Your task to perform on an android device: Set the phone to "Do not disturb". Image 0: 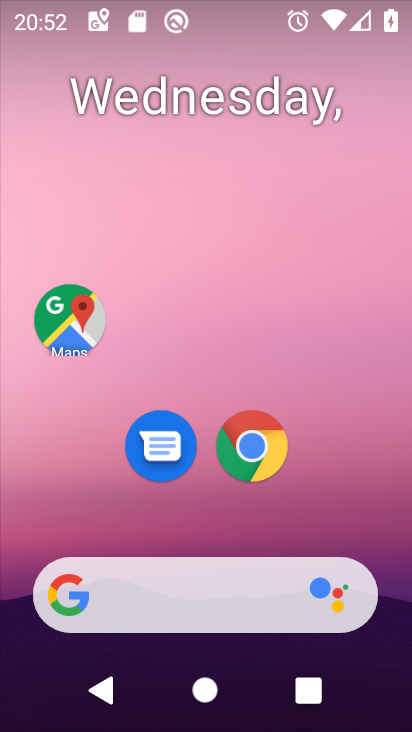
Step 0: drag from (194, 567) to (214, 184)
Your task to perform on an android device: Set the phone to "Do not disturb". Image 1: 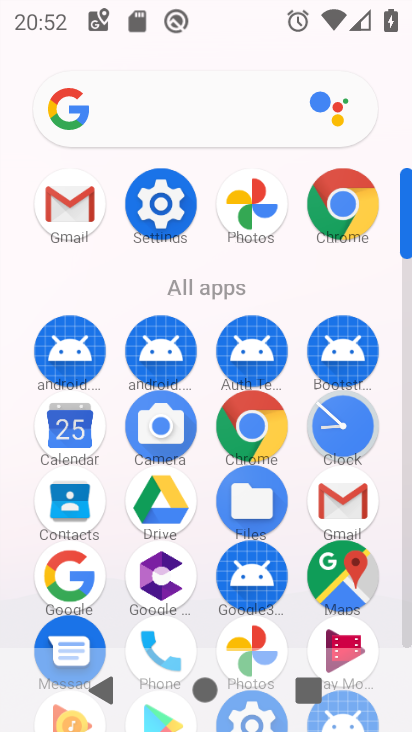
Step 1: click (147, 203)
Your task to perform on an android device: Set the phone to "Do not disturb". Image 2: 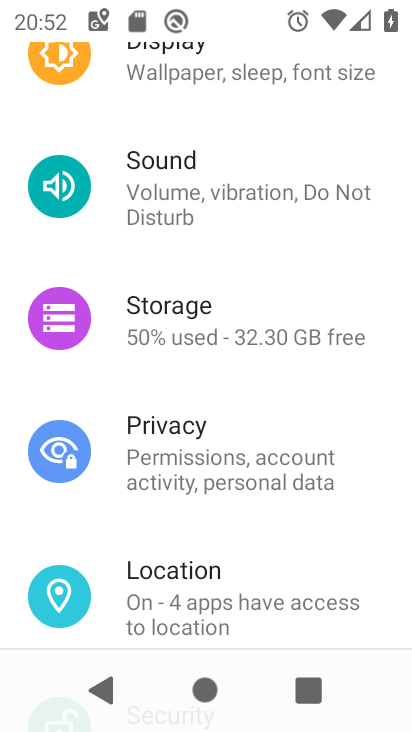
Step 2: click (176, 196)
Your task to perform on an android device: Set the phone to "Do not disturb". Image 3: 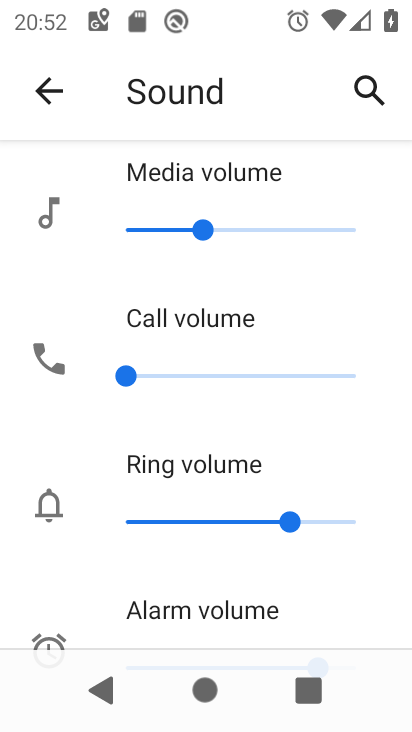
Step 3: drag from (223, 579) to (230, 78)
Your task to perform on an android device: Set the phone to "Do not disturb". Image 4: 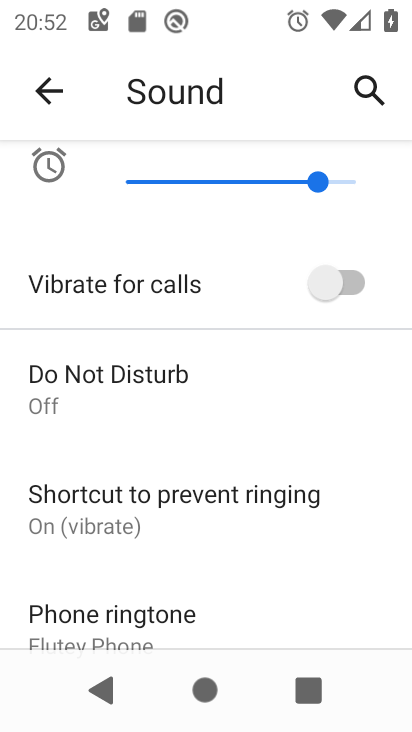
Step 4: click (127, 369)
Your task to perform on an android device: Set the phone to "Do not disturb". Image 5: 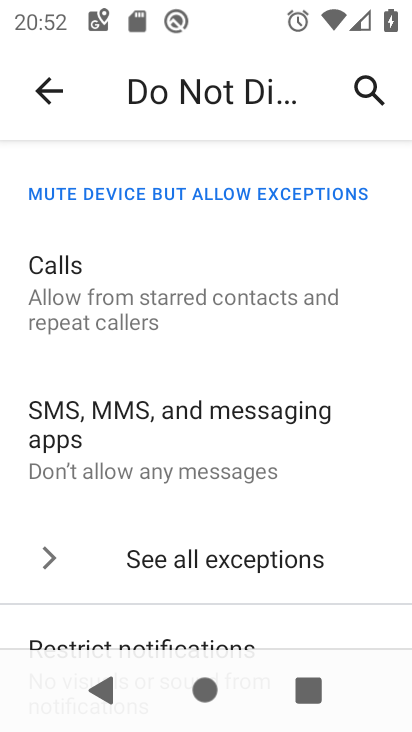
Step 5: drag from (171, 607) to (152, 136)
Your task to perform on an android device: Set the phone to "Do not disturb". Image 6: 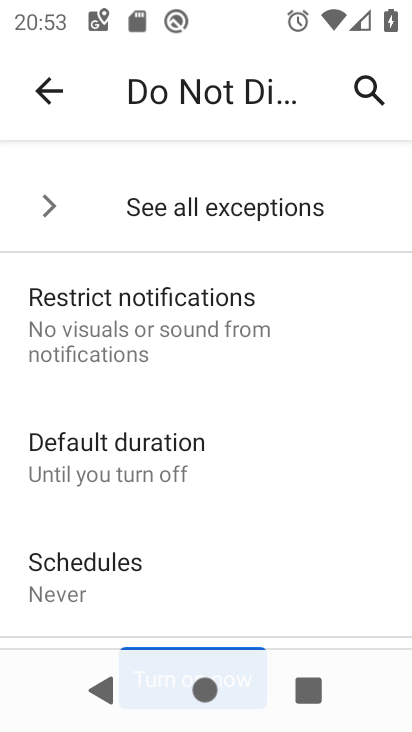
Step 6: drag from (264, 482) to (170, 4)
Your task to perform on an android device: Set the phone to "Do not disturb". Image 7: 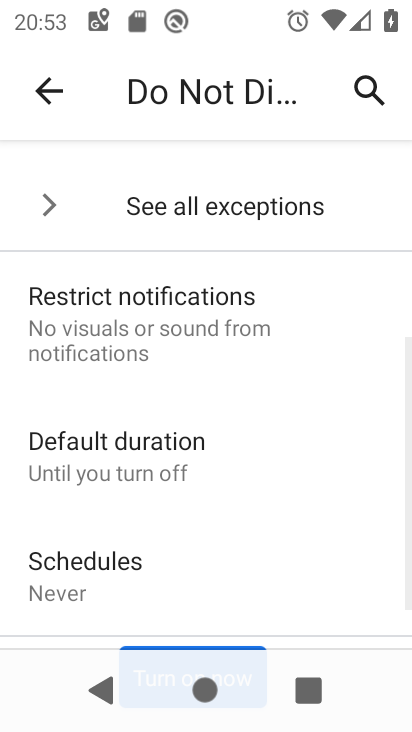
Step 7: drag from (214, 598) to (162, 59)
Your task to perform on an android device: Set the phone to "Do not disturb". Image 8: 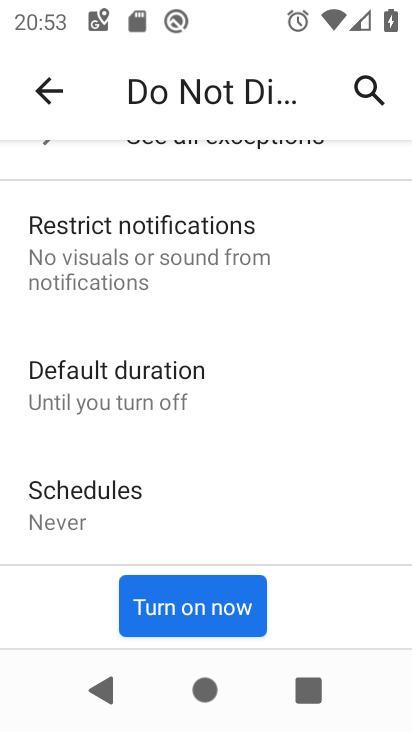
Step 8: click (166, 614)
Your task to perform on an android device: Set the phone to "Do not disturb". Image 9: 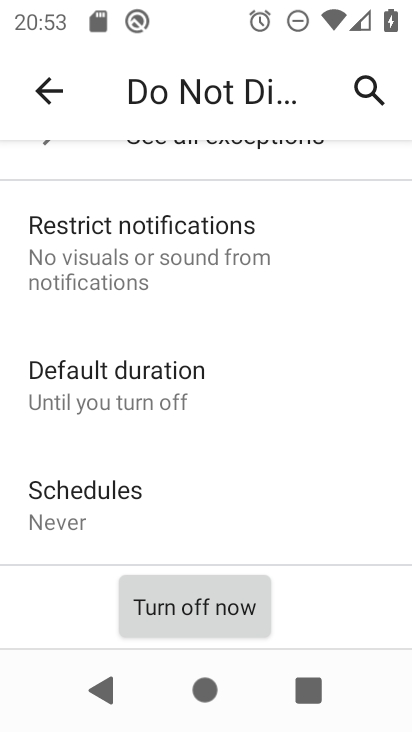
Step 9: task complete